Your task to perform on an android device: check android version Image 0: 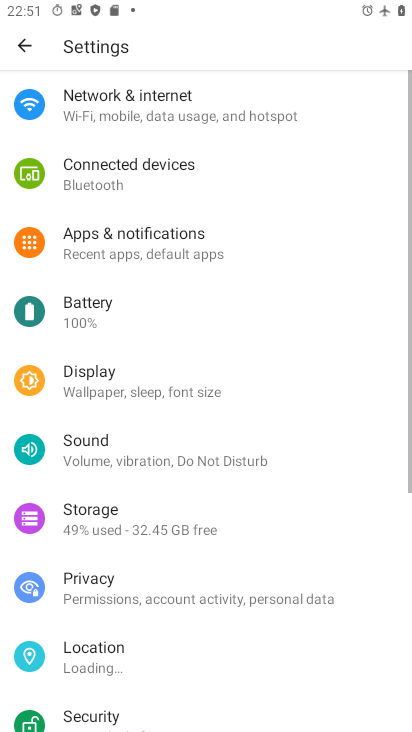
Step 0: press back button
Your task to perform on an android device: check android version Image 1: 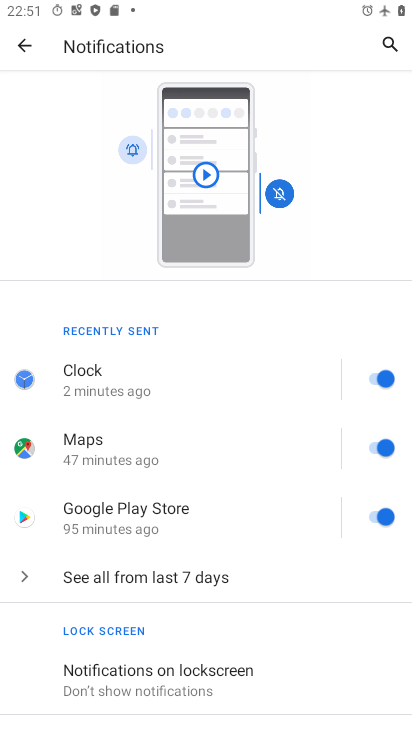
Step 1: press back button
Your task to perform on an android device: check android version Image 2: 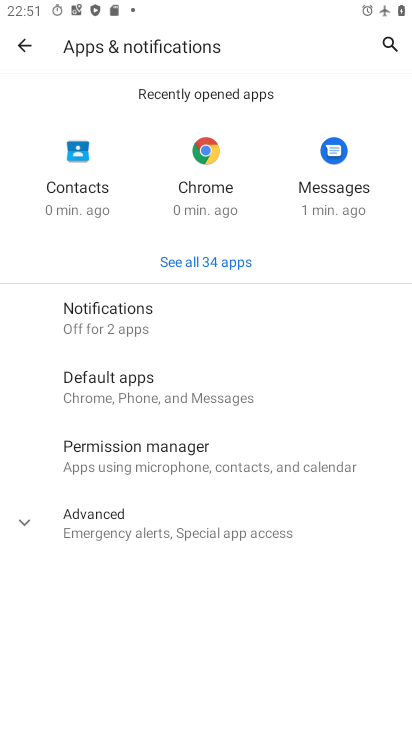
Step 2: press back button
Your task to perform on an android device: check android version Image 3: 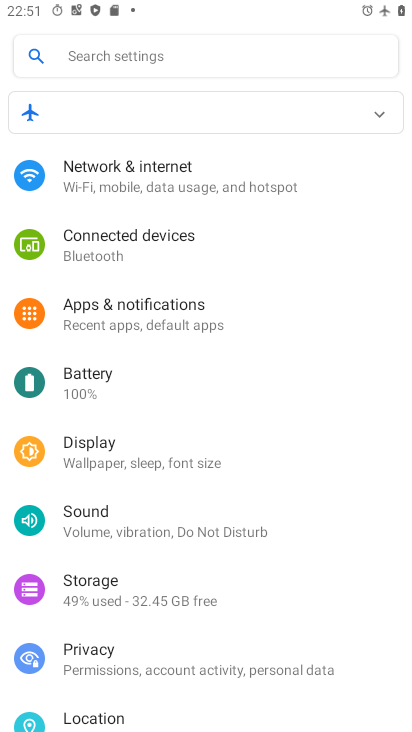
Step 3: press back button
Your task to perform on an android device: check android version Image 4: 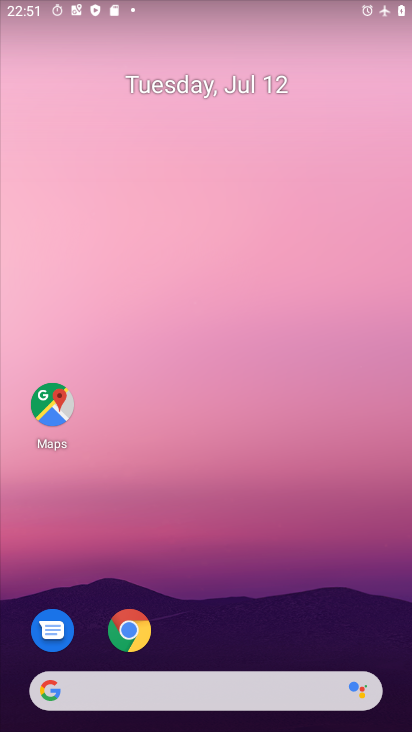
Step 4: drag from (218, 648) to (307, 9)
Your task to perform on an android device: check android version Image 5: 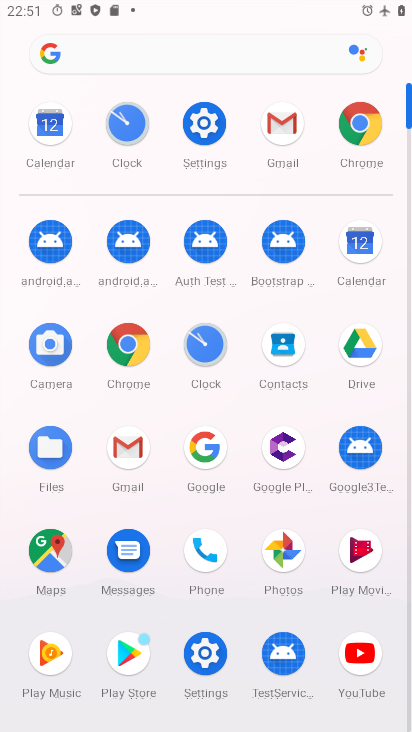
Step 5: click (210, 125)
Your task to perform on an android device: check android version Image 6: 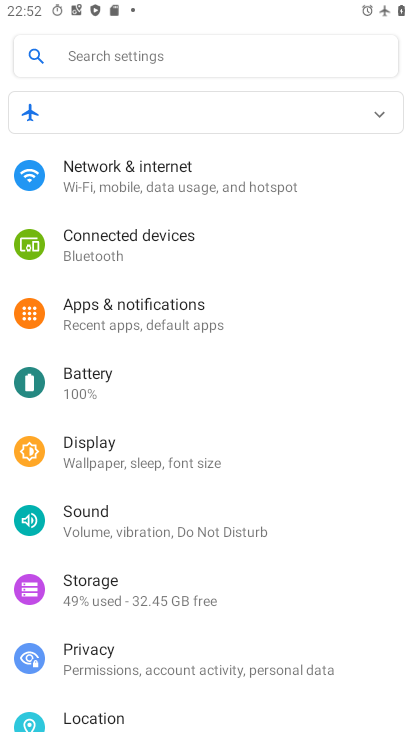
Step 6: drag from (148, 723) to (292, 24)
Your task to perform on an android device: check android version Image 7: 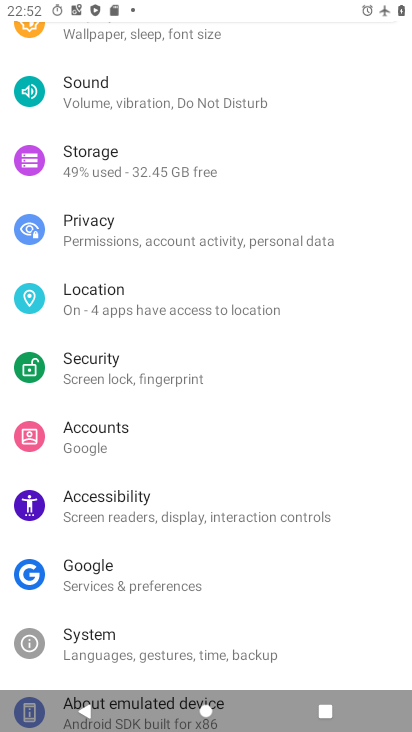
Step 7: drag from (159, 627) to (242, 5)
Your task to perform on an android device: check android version Image 8: 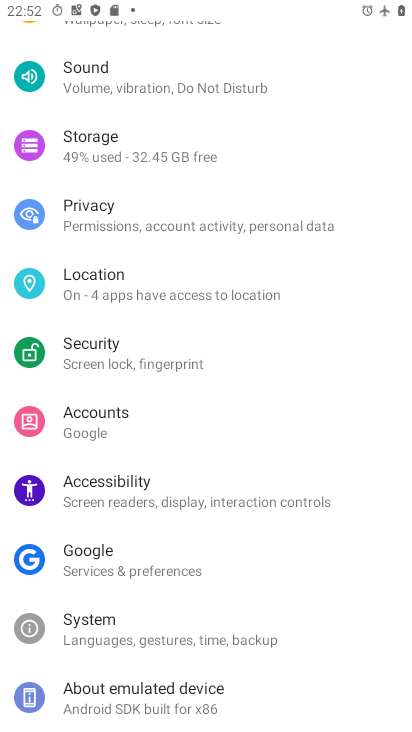
Step 8: drag from (131, 722) to (224, 87)
Your task to perform on an android device: check android version Image 9: 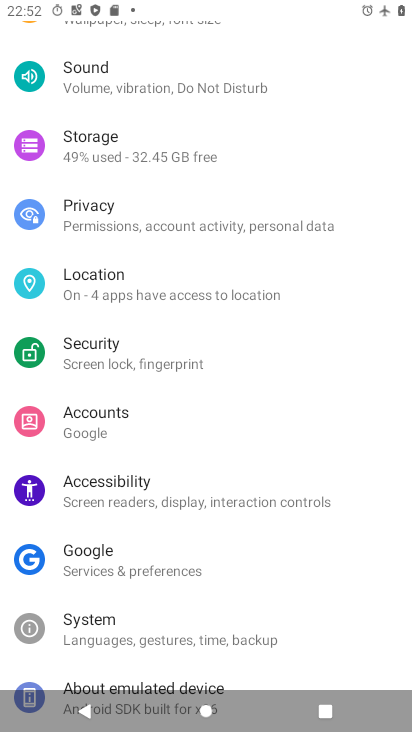
Step 9: drag from (99, 665) to (148, 182)
Your task to perform on an android device: check android version Image 10: 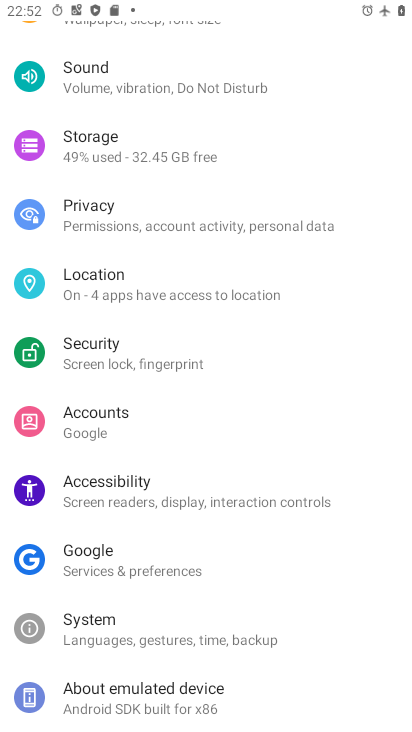
Step 10: click (87, 684)
Your task to perform on an android device: check android version Image 11: 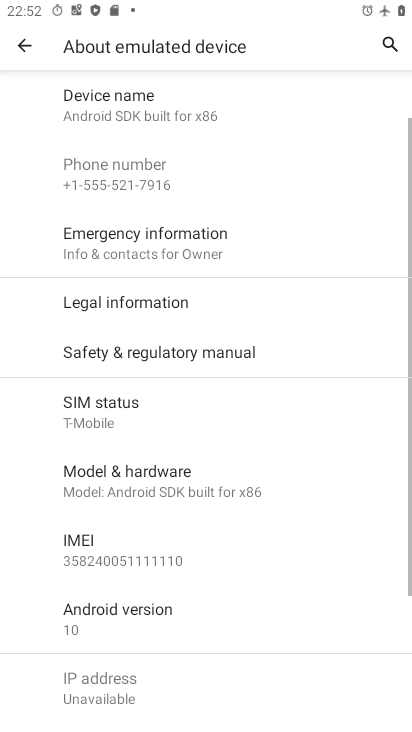
Step 11: click (120, 640)
Your task to perform on an android device: check android version Image 12: 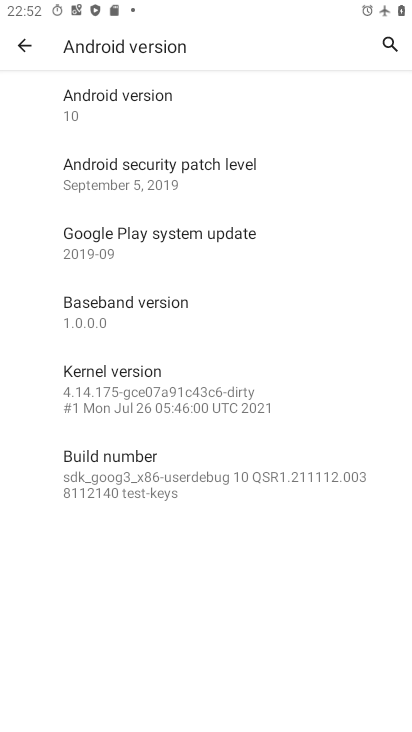
Step 12: task complete